Your task to perform on an android device: see sites visited before in the chrome app Image 0: 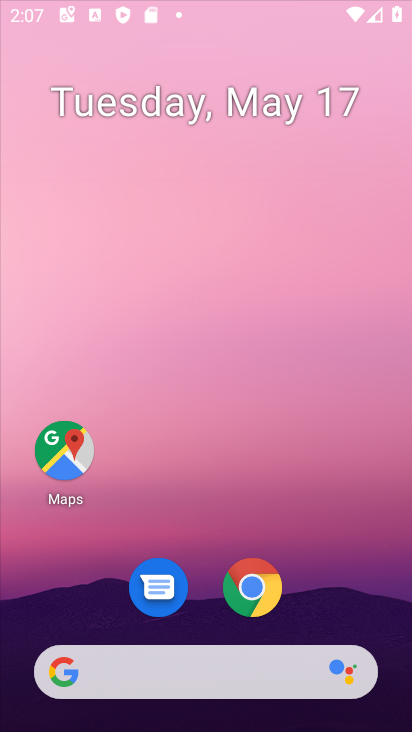
Step 0: click (238, 158)
Your task to perform on an android device: see sites visited before in the chrome app Image 1: 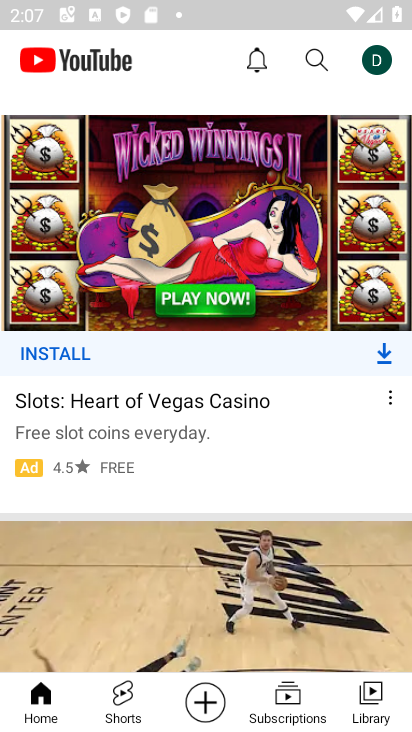
Step 1: press home button
Your task to perform on an android device: see sites visited before in the chrome app Image 2: 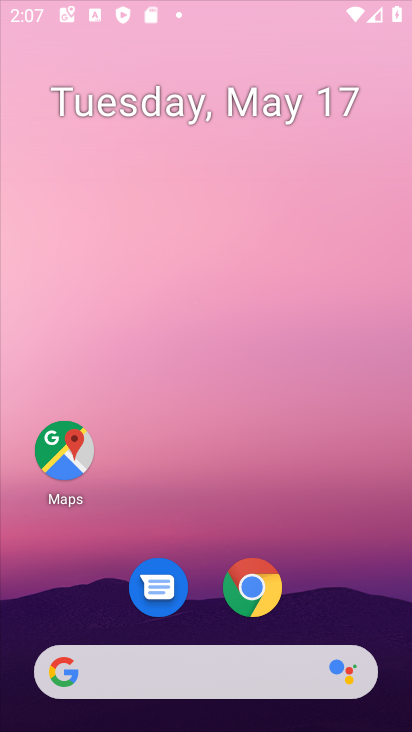
Step 2: drag from (224, 630) to (275, 224)
Your task to perform on an android device: see sites visited before in the chrome app Image 3: 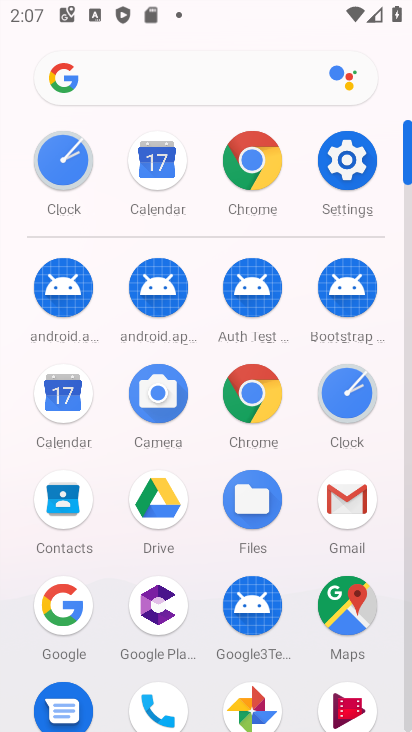
Step 3: click (253, 166)
Your task to perform on an android device: see sites visited before in the chrome app Image 4: 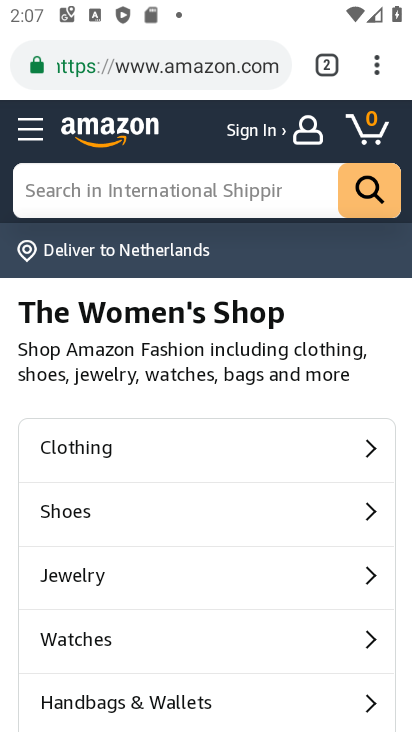
Step 4: drag from (258, 366) to (257, 183)
Your task to perform on an android device: see sites visited before in the chrome app Image 5: 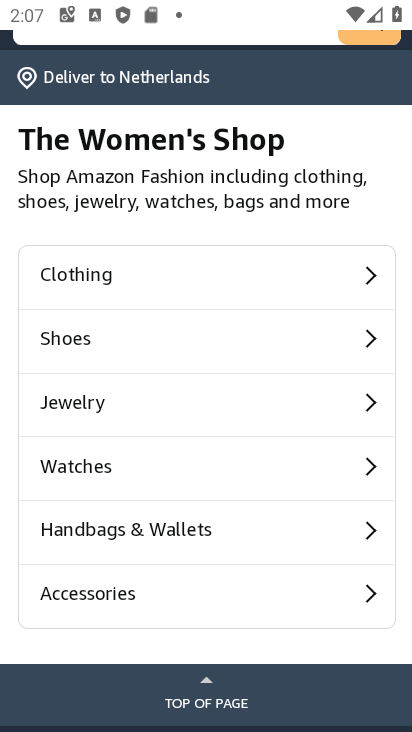
Step 5: drag from (299, 194) to (357, 619)
Your task to perform on an android device: see sites visited before in the chrome app Image 6: 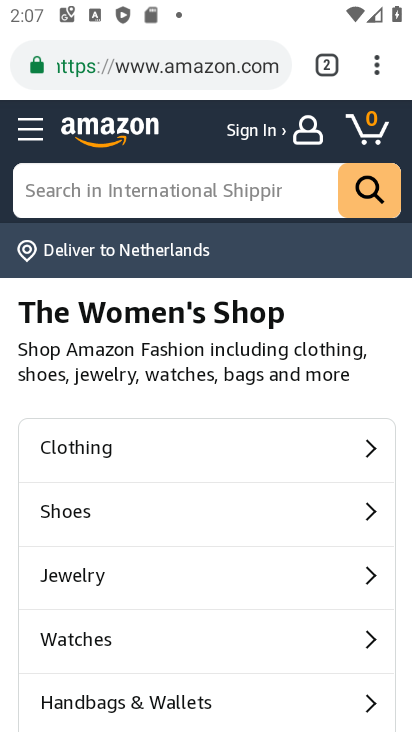
Step 6: click (380, 66)
Your task to perform on an android device: see sites visited before in the chrome app Image 7: 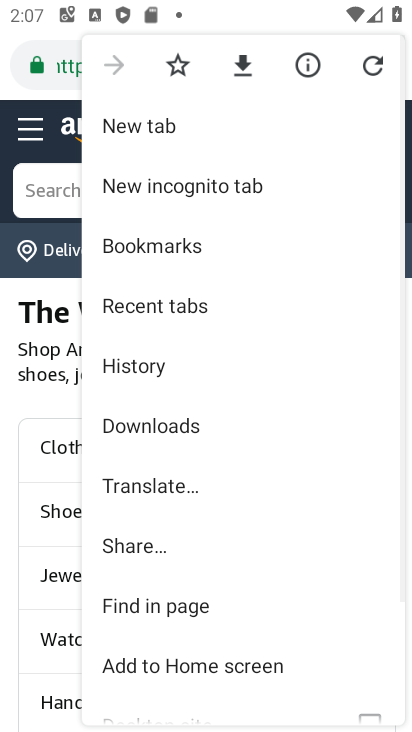
Step 7: drag from (266, 618) to (310, 96)
Your task to perform on an android device: see sites visited before in the chrome app Image 8: 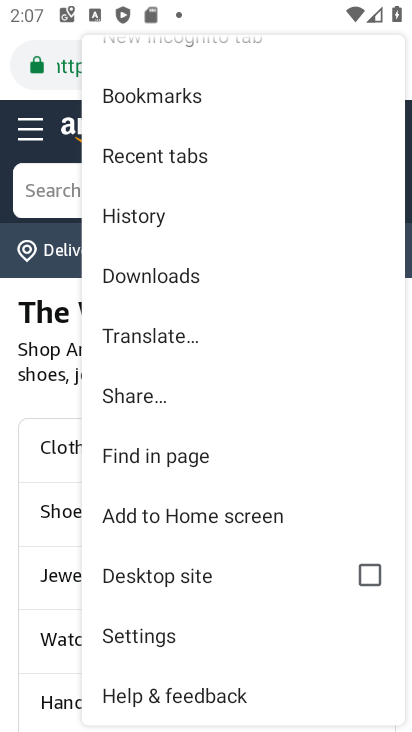
Step 8: drag from (182, 189) to (260, 549)
Your task to perform on an android device: see sites visited before in the chrome app Image 9: 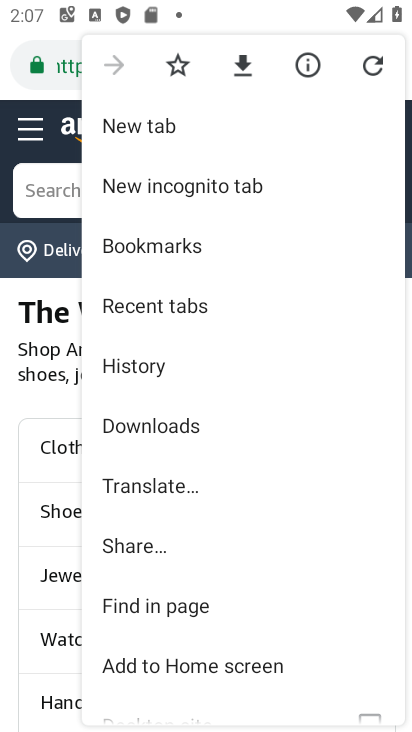
Step 9: click (200, 252)
Your task to perform on an android device: see sites visited before in the chrome app Image 10: 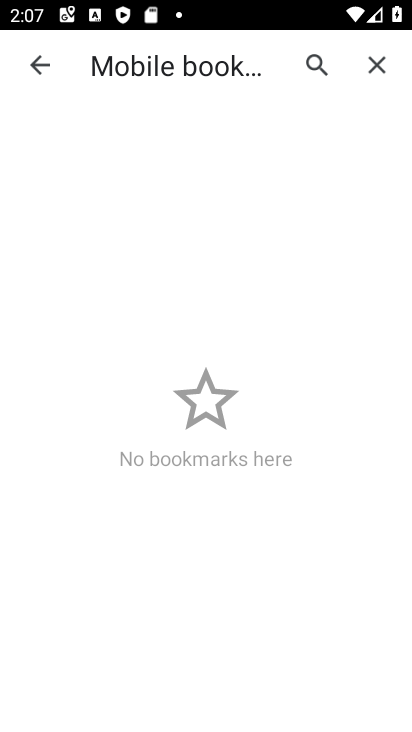
Step 10: drag from (233, 620) to (244, 200)
Your task to perform on an android device: see sites visited before in the chrome app Image 11: 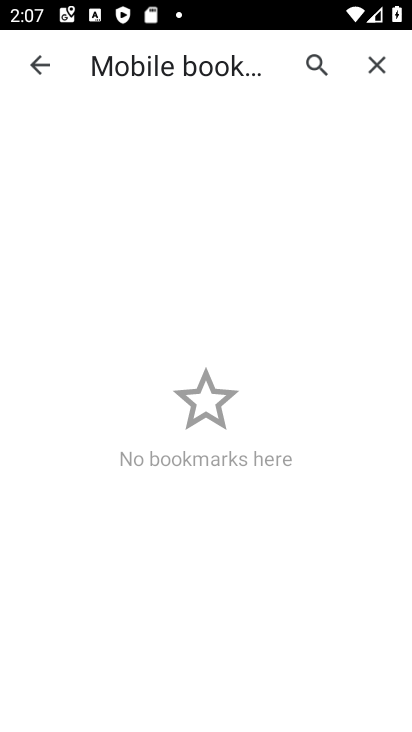
Step 11: drag from (217, 366) to (238, 270)
Your task to perform on an android device: see sites visited before in the chrome app Image 12: 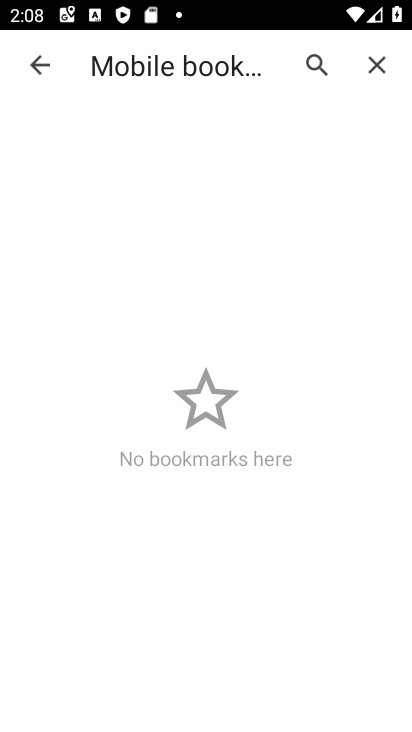
Step 12: click (270, 264)
Your task to perform on an android device: see sites visited before in the chrome app Image 13: 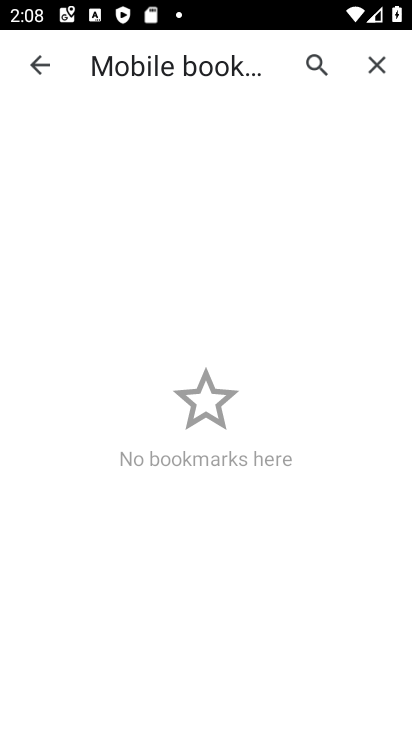
Step 13: task complete